Your task to perform on an android device: open app "WhatsApp Messenger" (install if not already installed) Image 0: 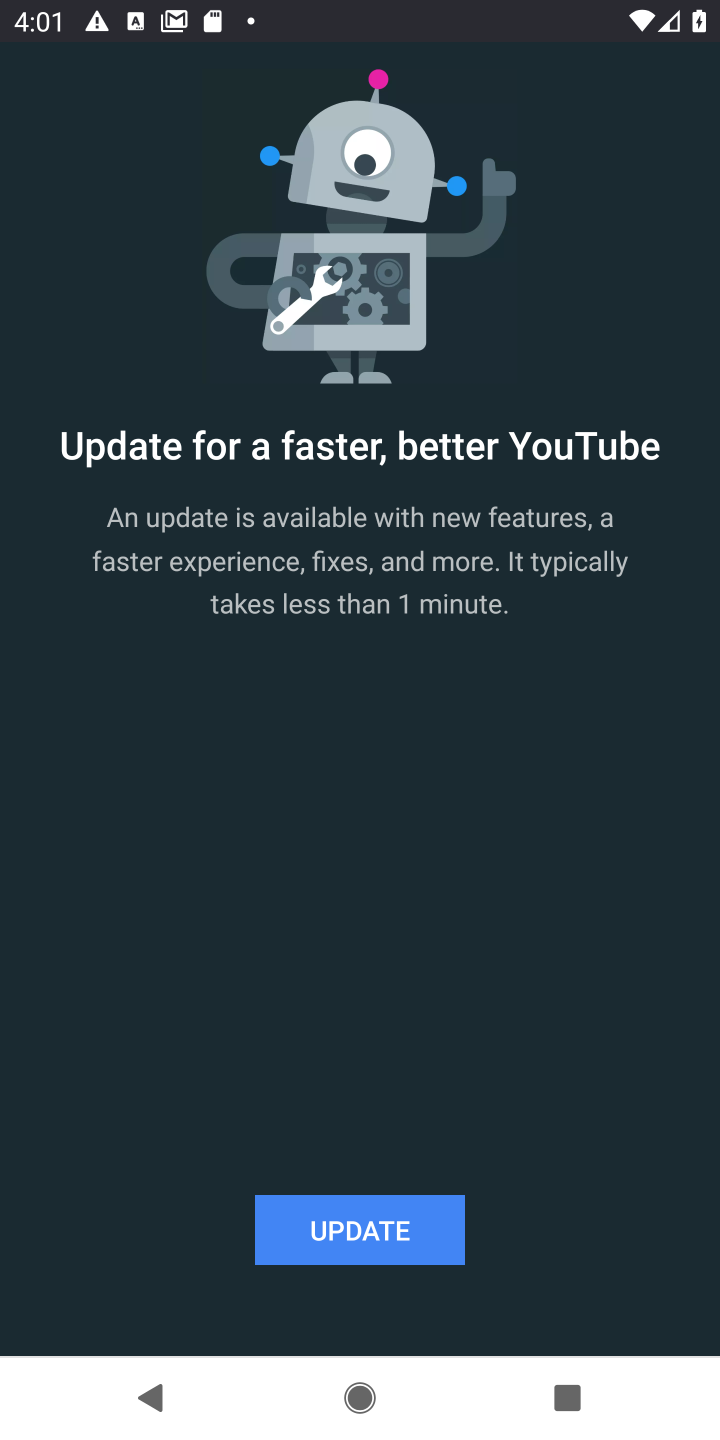
Step 0: click (309, 84)
Your task to perform on an android device: open app "WhatsApp Messenger" (install if not already installed) Image 1: 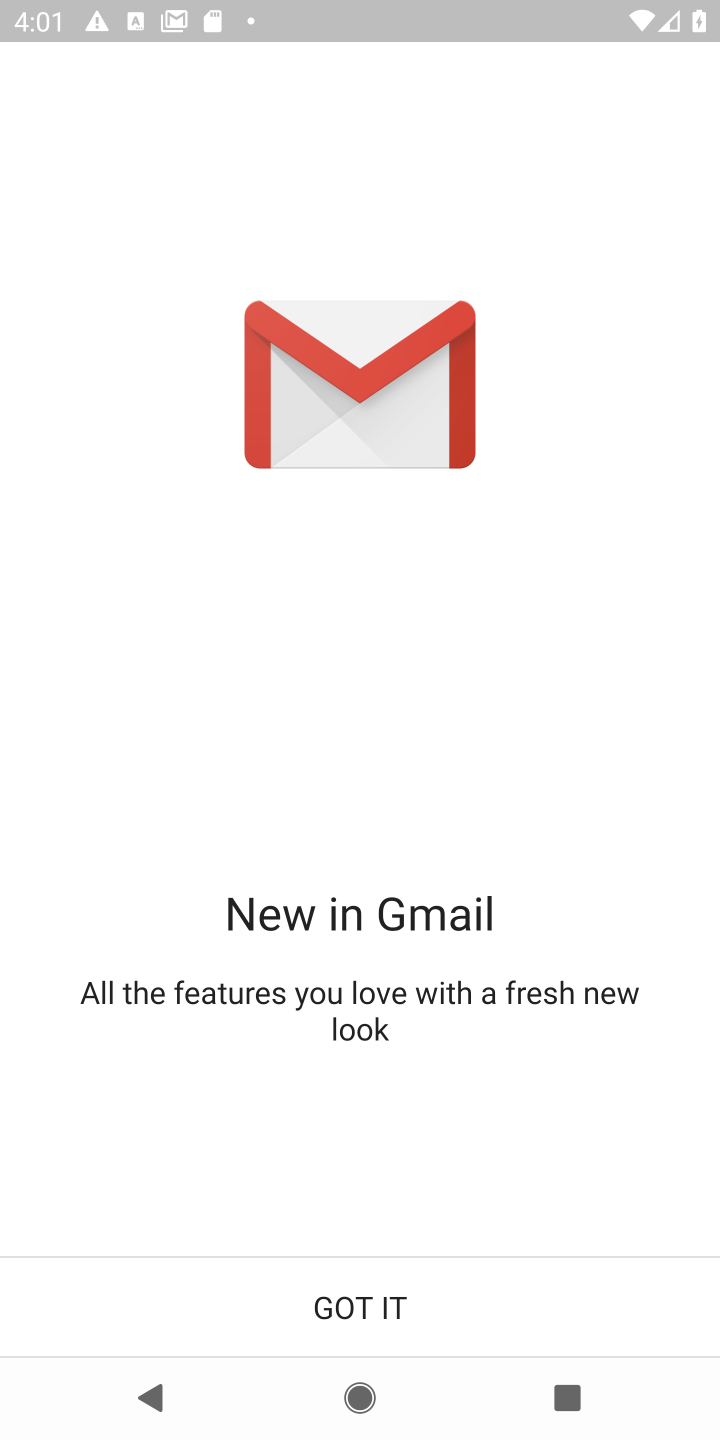
Step 1: press home button
Your task to perform on an android device: open app "WhatsApp Messenger" (install if not already installed) Image 2: 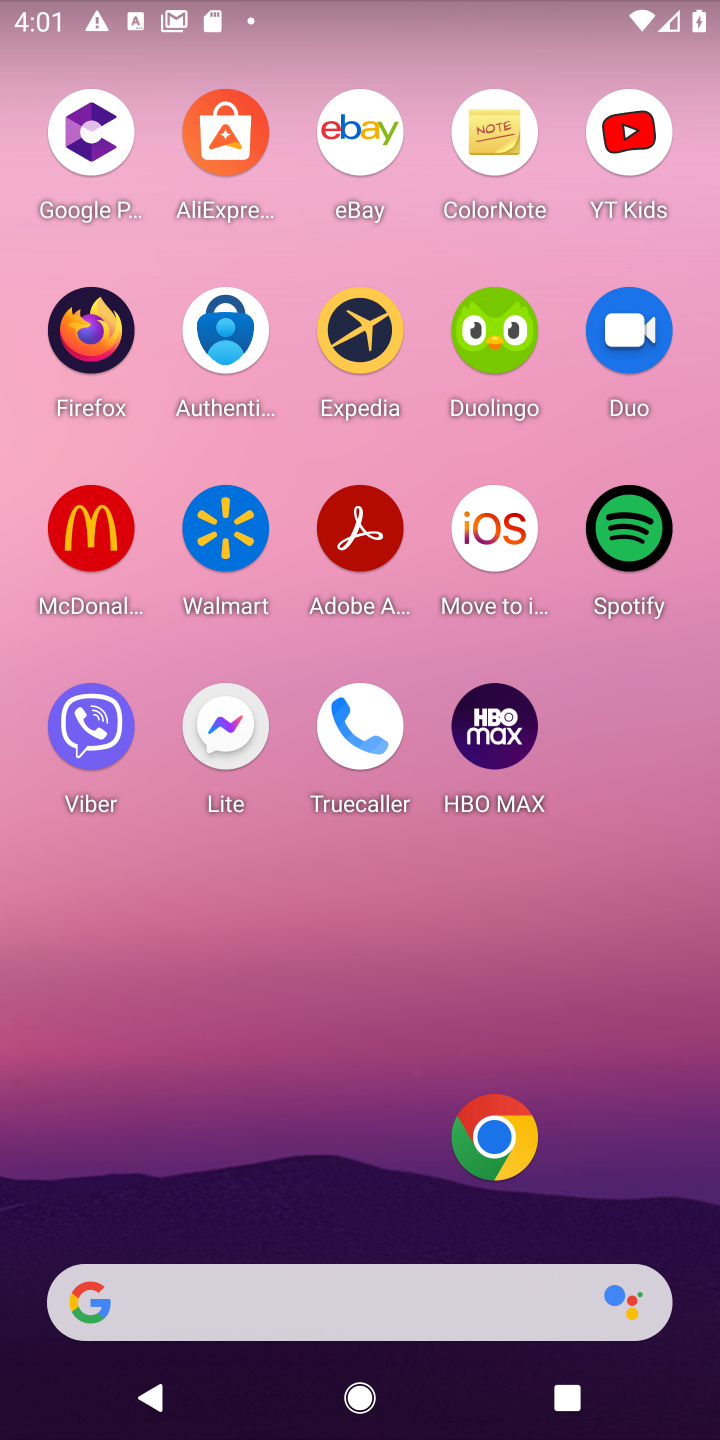
Step 2: drag from (291, 1095) to (528, 42)
Your task to perform on an android device: open app "WhatsApp Messenger" (install if not already installed) Image 3: 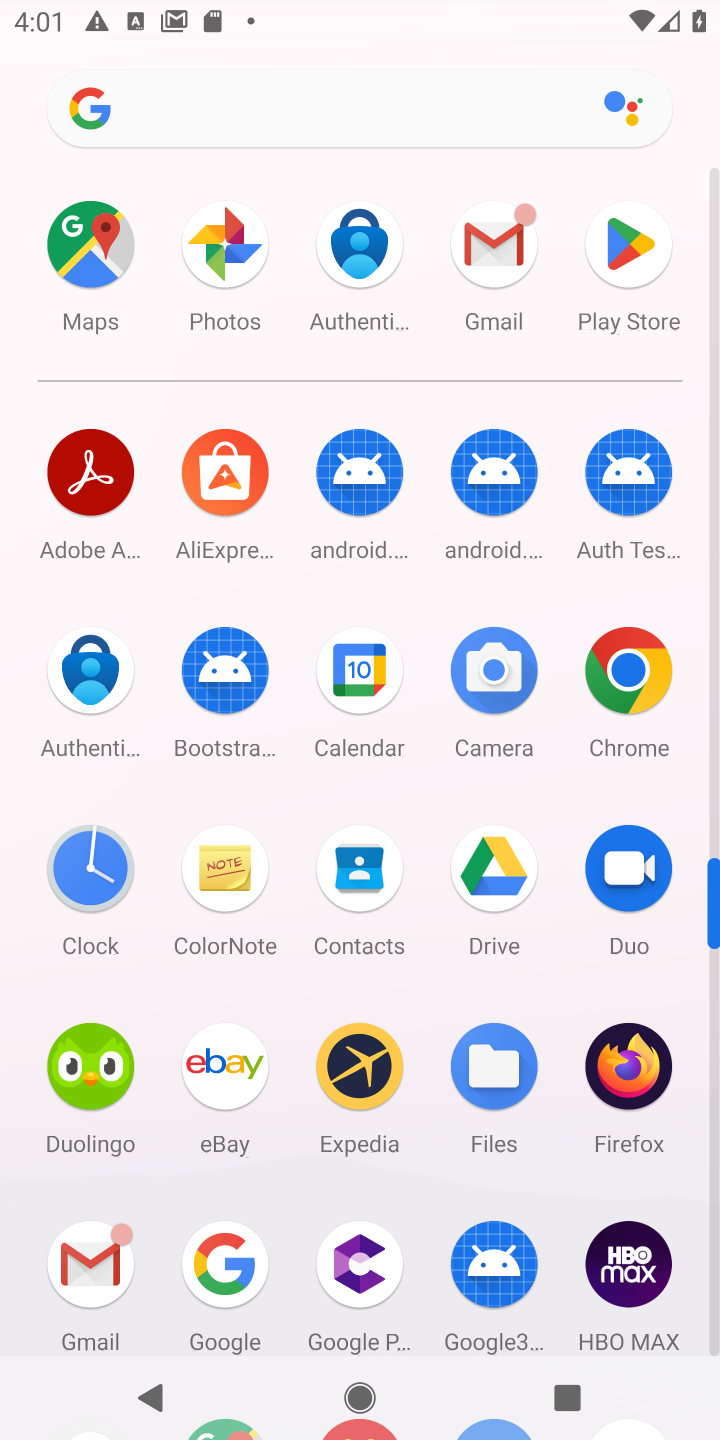
Step 3: click (642, 277)
Your task to perform on an android device: open app "WhatsApp Messenger" (install if not already installed) Image 4: 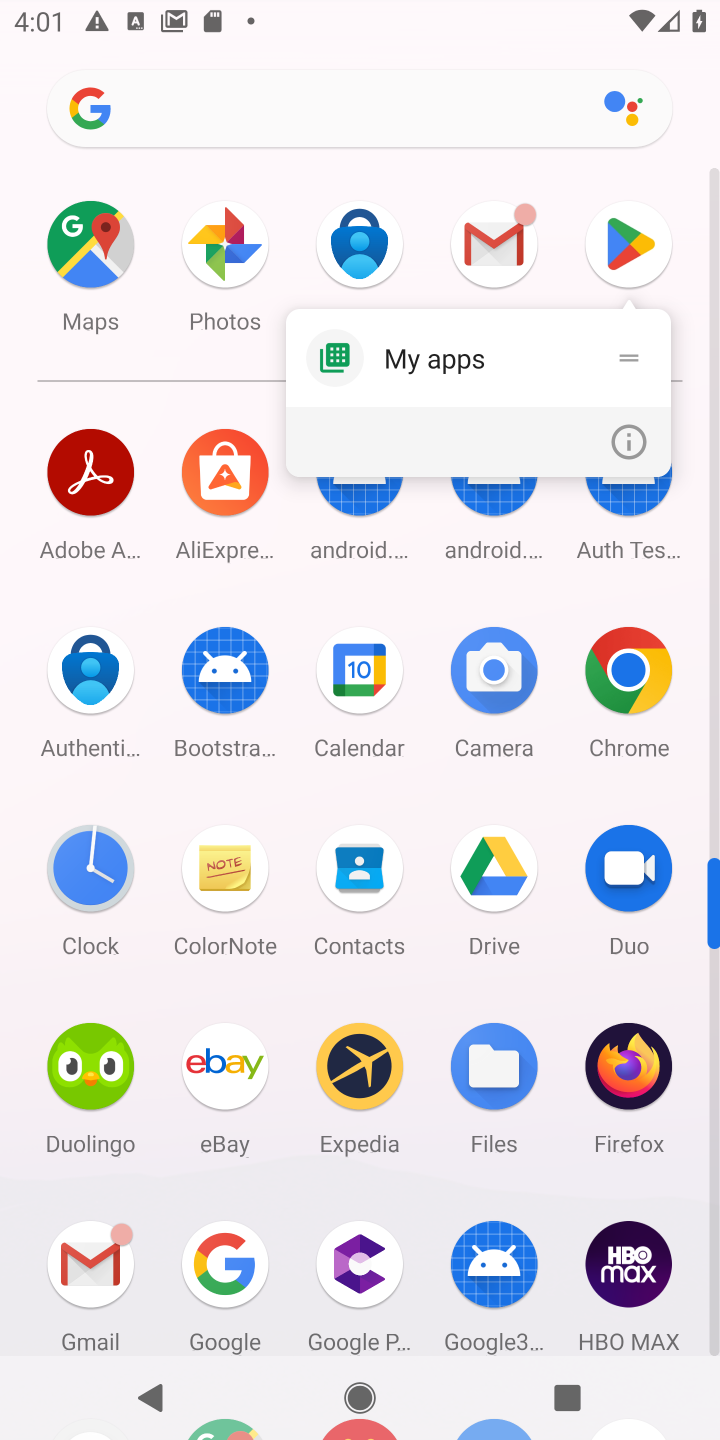
Step 4: click (630, 217)
Your task to perform on an android device: open app "WhatsApp Messenger" (install if not already installed) Image 5: 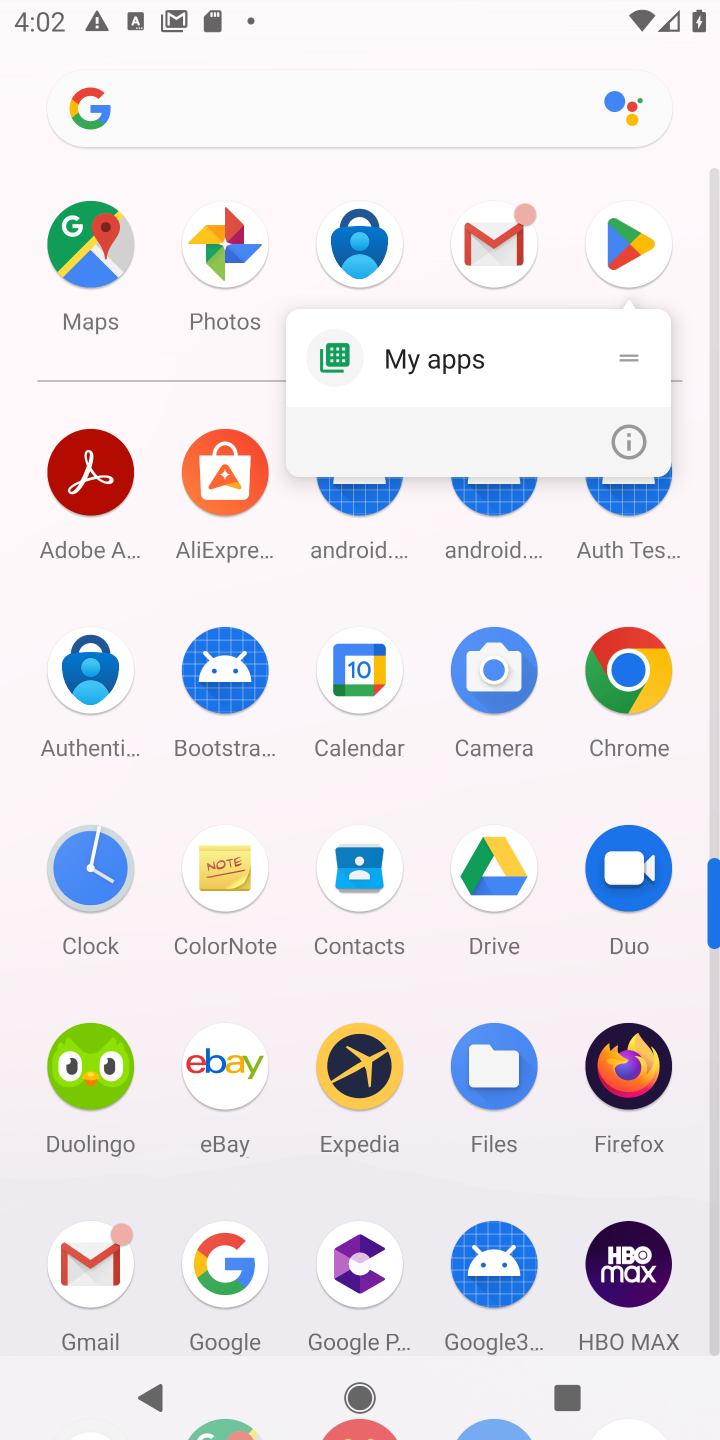
Step 5: click (630, 220)
Your task to perform on an android device: open app "WhatsApp Messenger" (install if not already installed) Image 6: 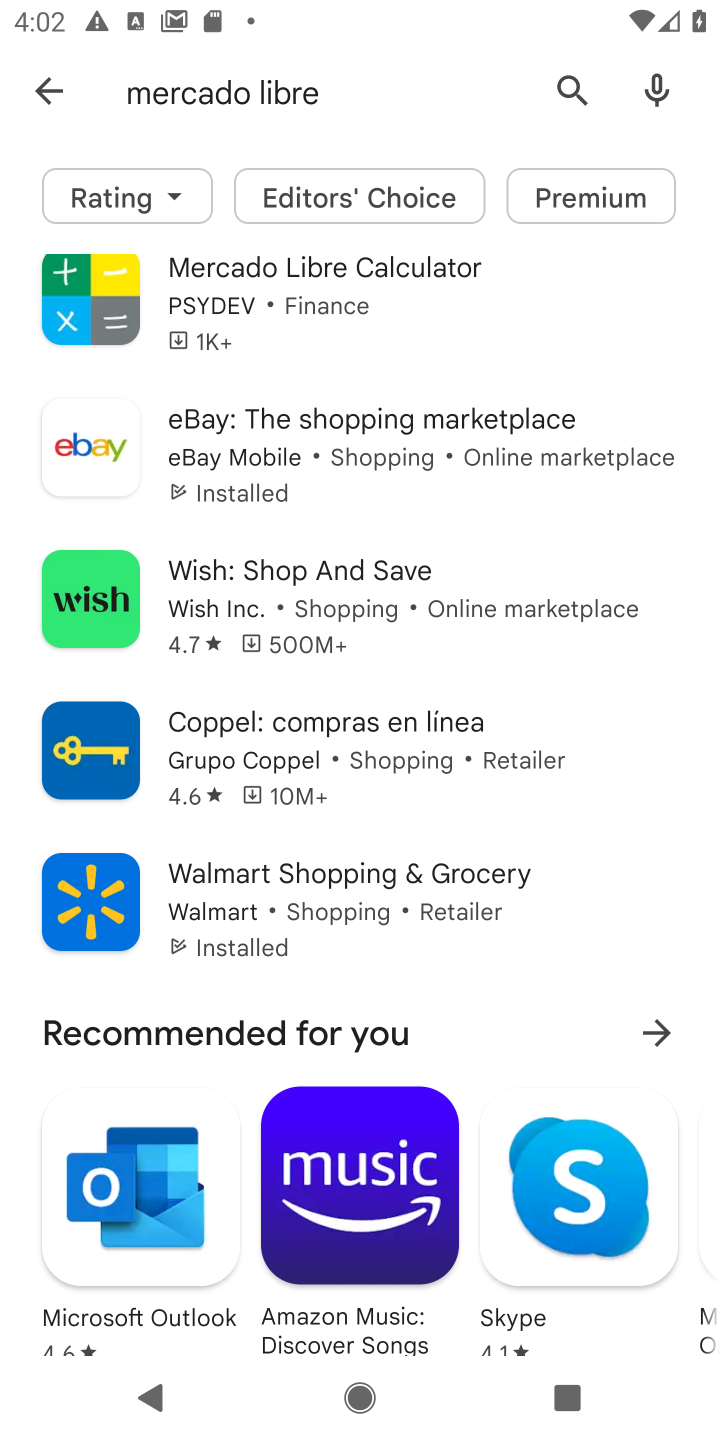
Step 6: click (395, 85)
Your task to perform on an android device: open app "WhatsApp Messenger" (install if not already installed) Image 7: 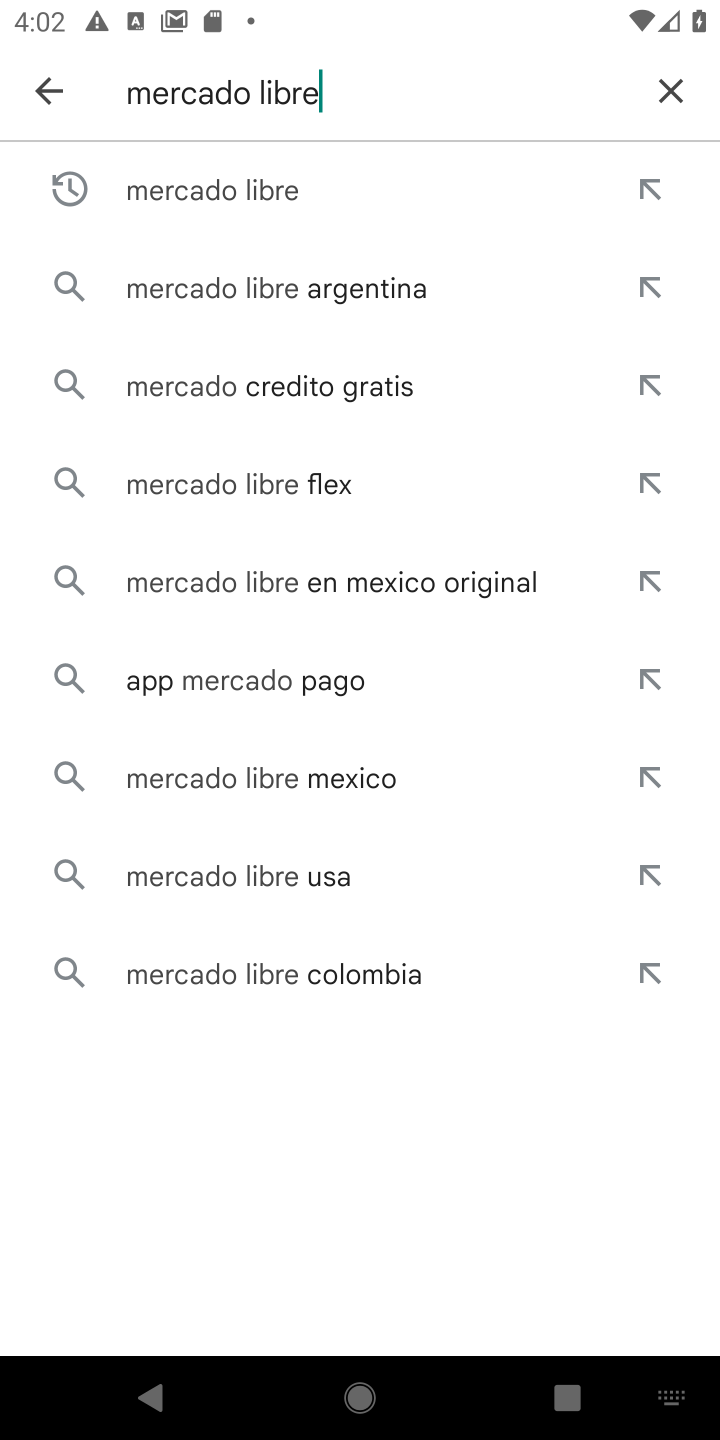
Step 7: click (667, 81)
Your task to perform on an android device: open app "WhatsApp Messenger" (install if not already installed) Image 8: 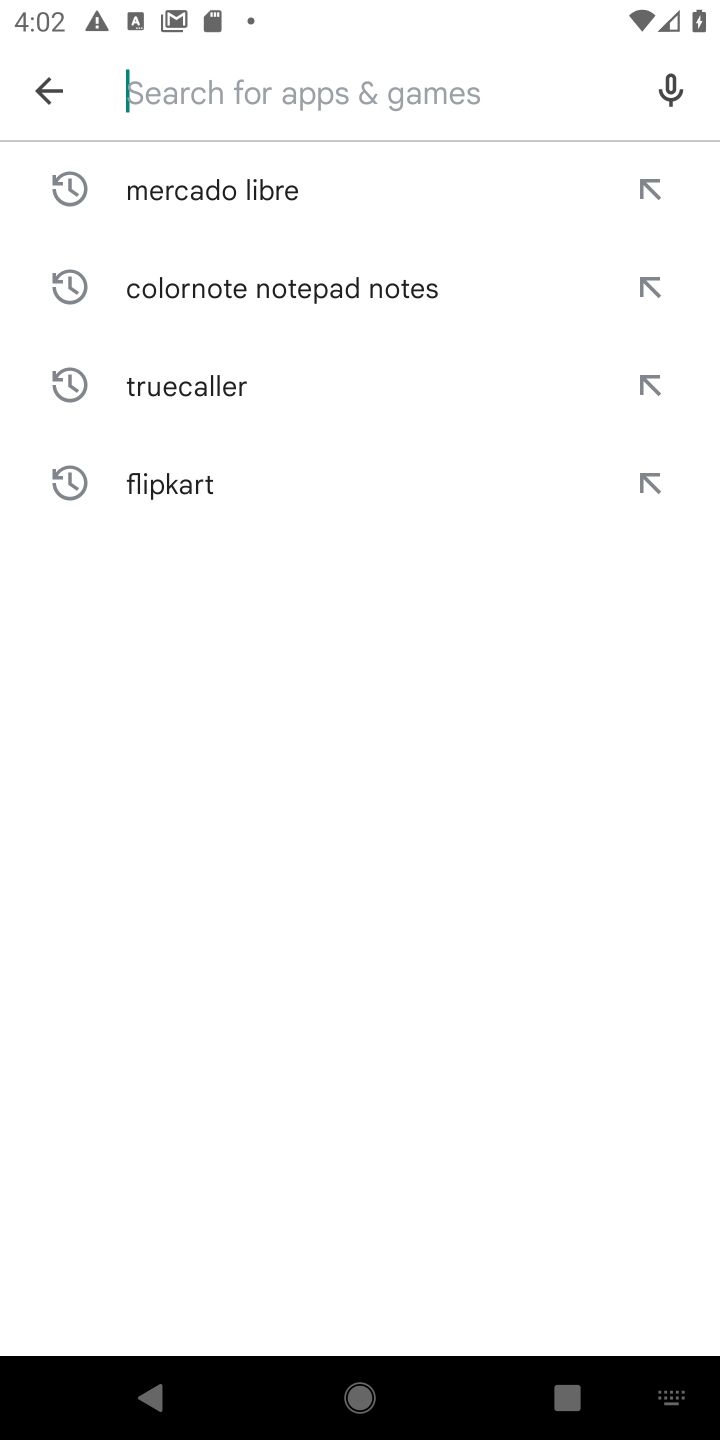
Step 8: type "whatsapp messenger"
Your task to perform on an android device: open app "WhatsApp Messenger" (install if not already installed) Image 9: 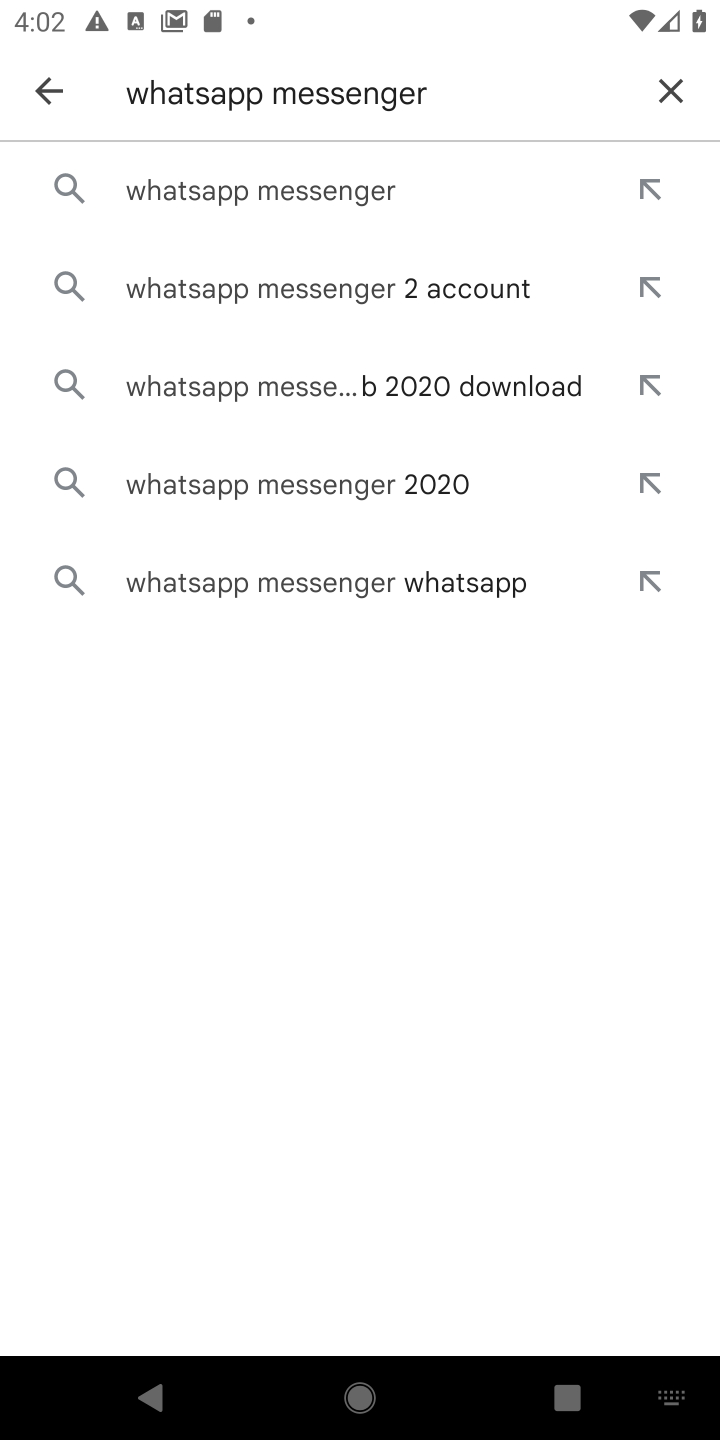
Step 9: click (323, 208)
Your task to perform on an android device: open app "WhatsApp Messenger" (install if not already installed) Image 10: 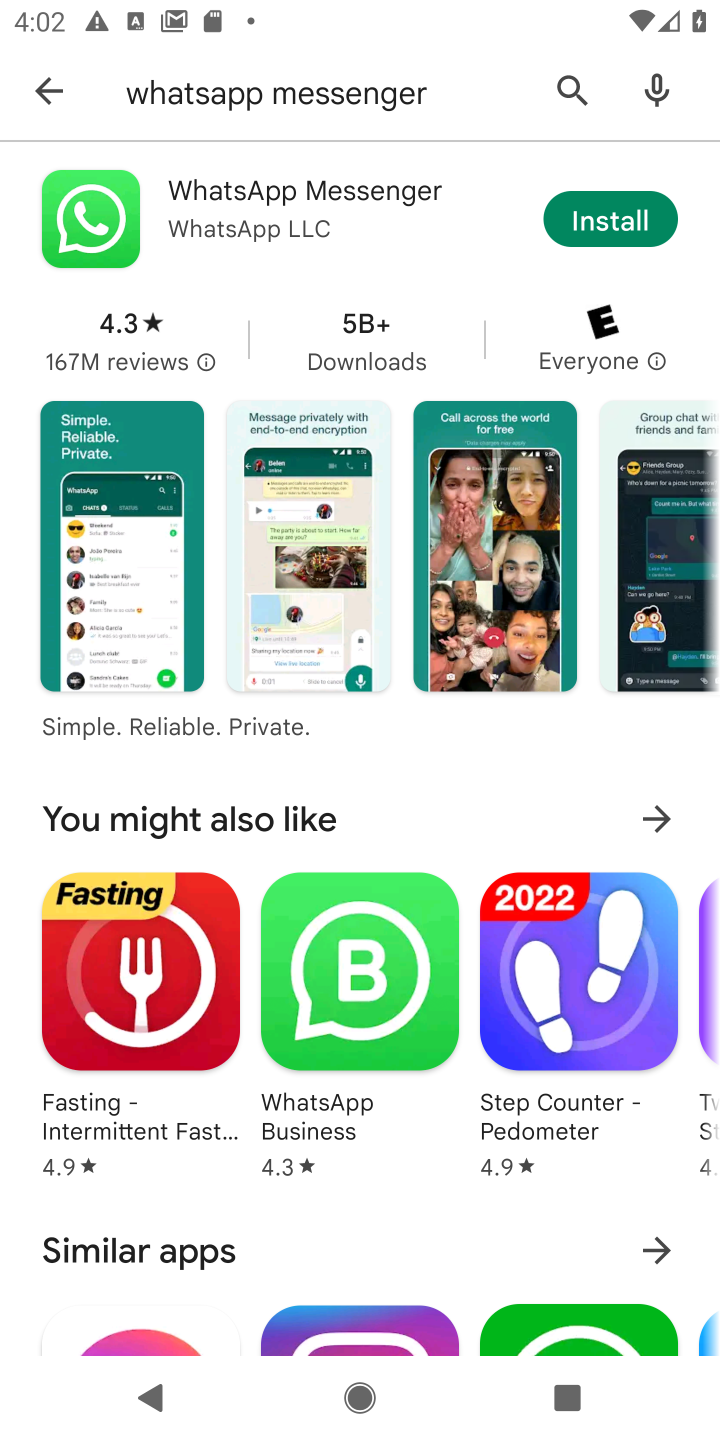
Step 10: click (606, 231)
Your task to perform on an android device: open app "WhatsApp Messenger" (install if not already installed) Image 11: 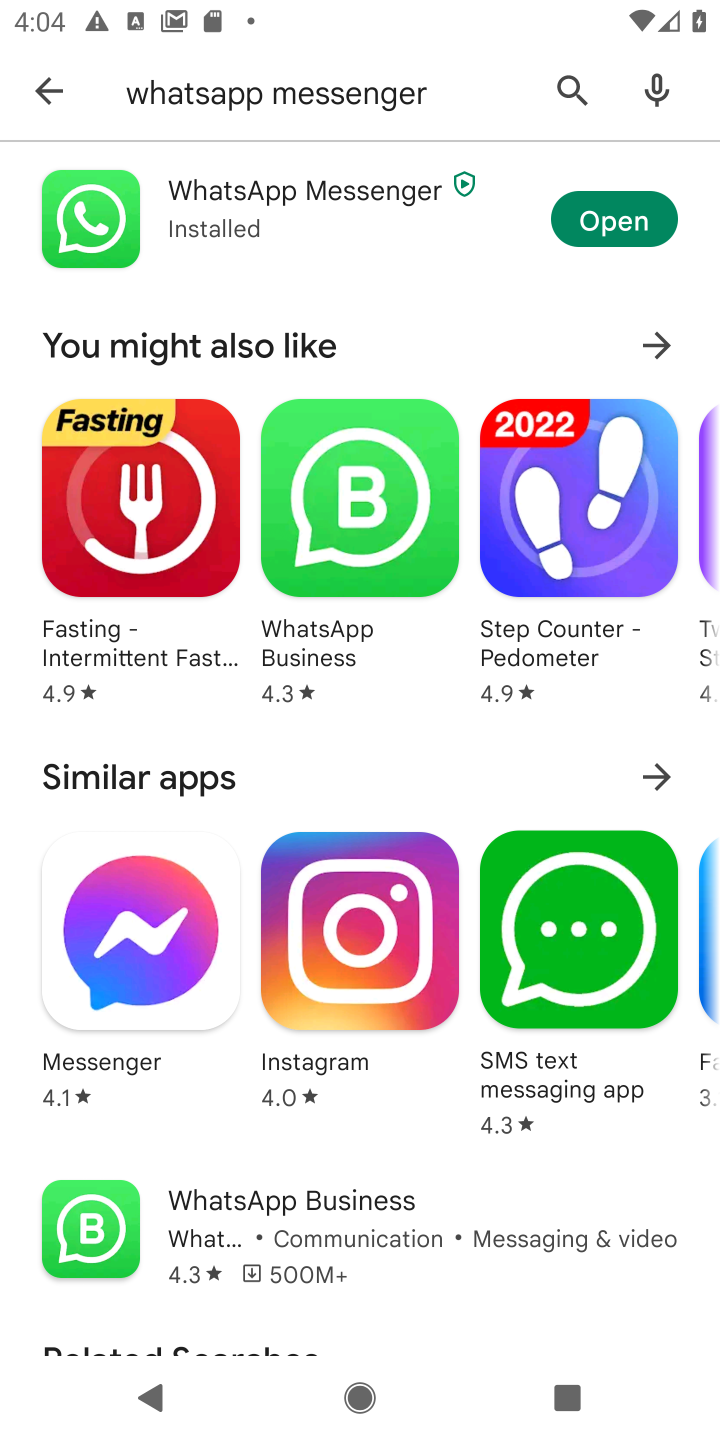
Step 11: click (614, 224)
Your task to perform on an android device: open app "WhatsApp Messenger" (install if not already installed) Image 12: 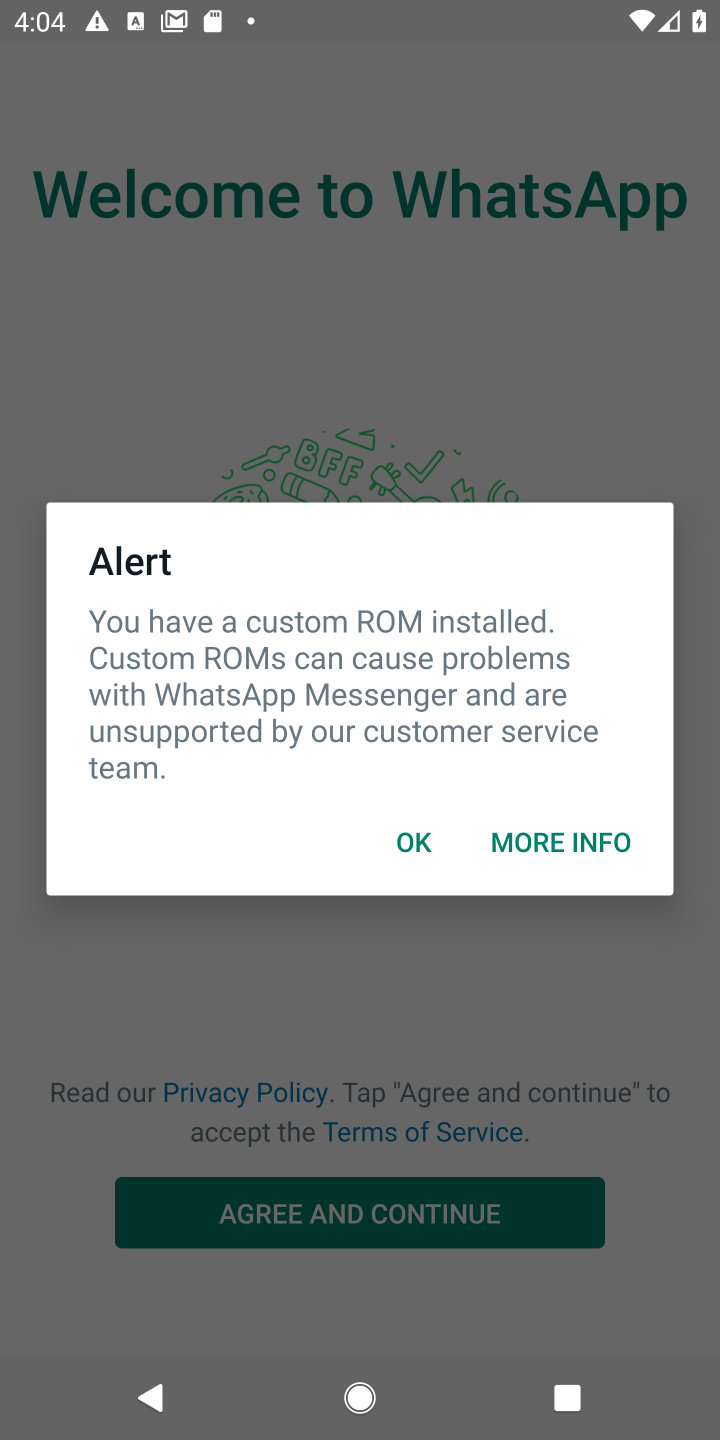
Step 12: click (464, 1211)
Your task to perform on an android device: open app "WhatsApp Messenger" (install if not already installed) Image 13: 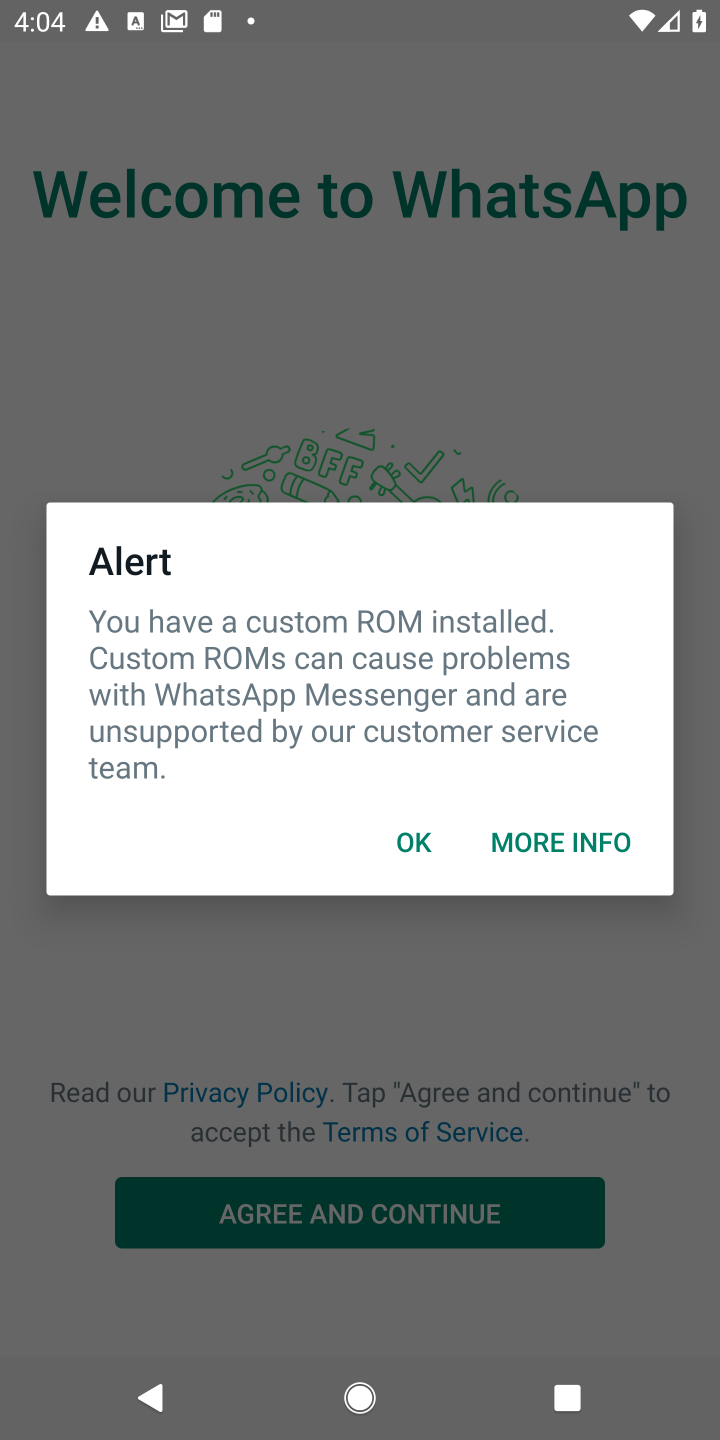
Step 13: click (413, 835)
Your task to perform on an android device: open app "WhatsApp Messenger" (install if not already installed) Image 14: 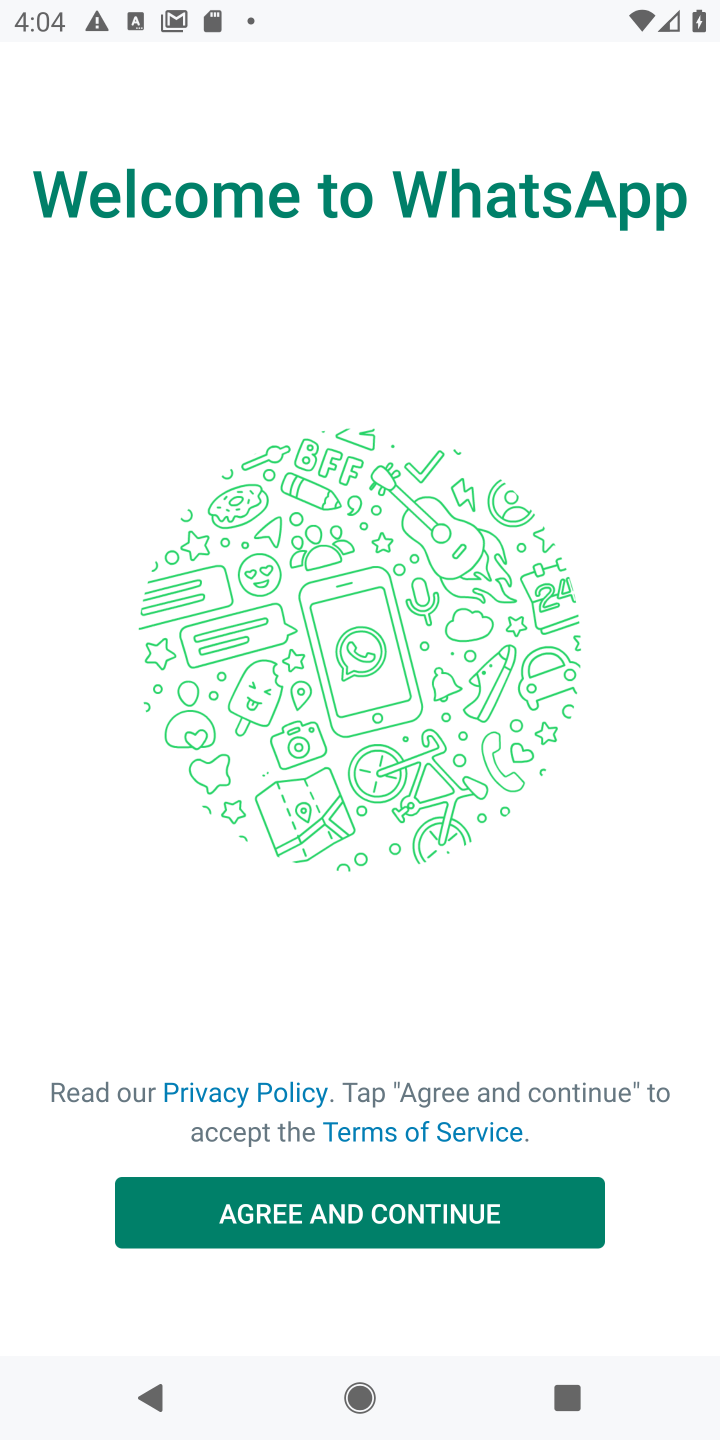
Step 14: click (369, 1234)
Your task to perform on an android device: open app "WhatsApp Messenger" (install if not already installed) Image 15: 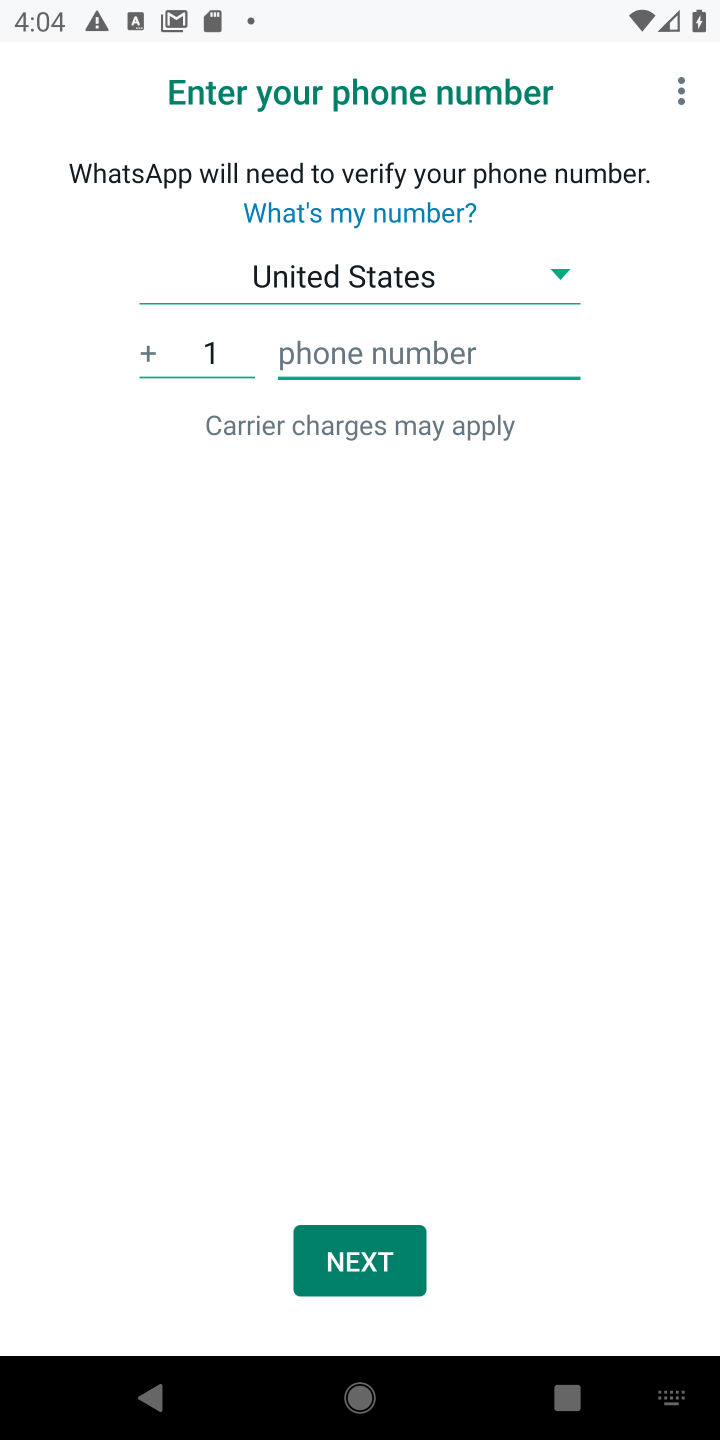
Step 15: task complete